Your task to perform on an android device: Open battery settings Image 0: 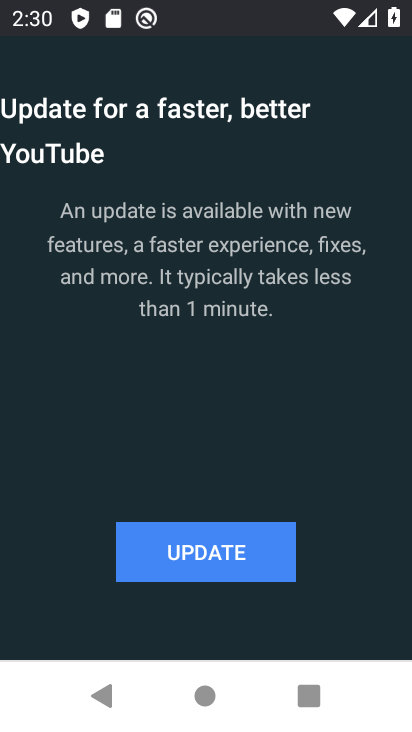
Step 0: press home button
Your task to perform on an android device: Open battery settings Image 1: 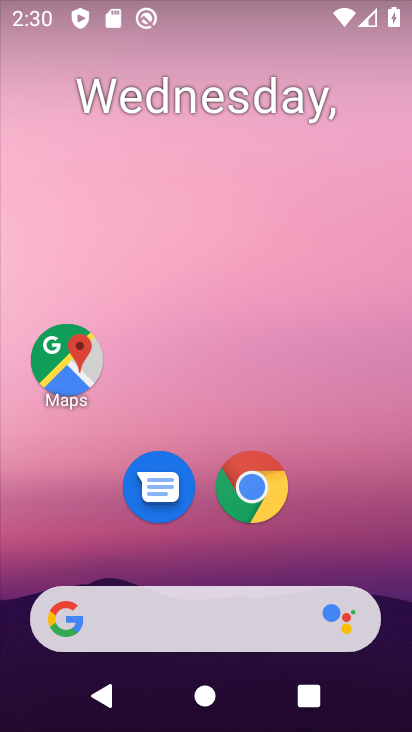
Step 1: drag from (145, 598) to (259, 35)
Your task to perform on an android device: Open battery settings Image 2: 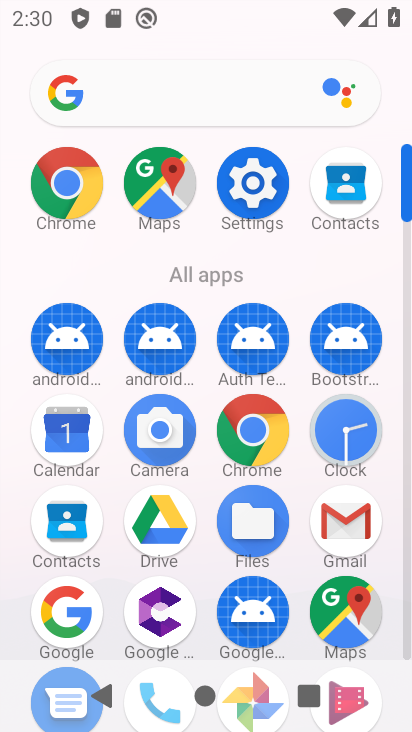
Step 2: click (271, 182)
Your task to perform on an android device: Open battery settings Image 3: 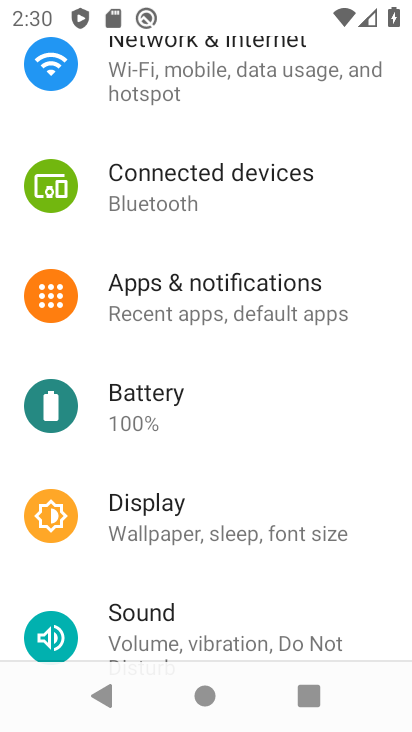
Step 3: click (211, 391)
Your task to perform on an android device: Open battery settings Image 4: 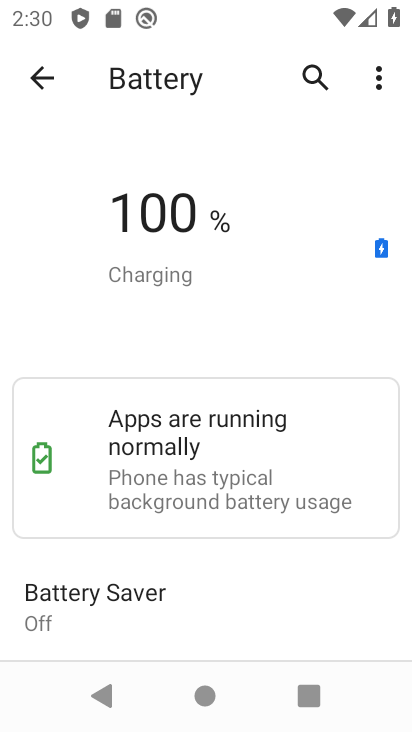
Step 4: task complete